Your task to perform on an android device: Search for sushi restaurants on Maps Image 0: 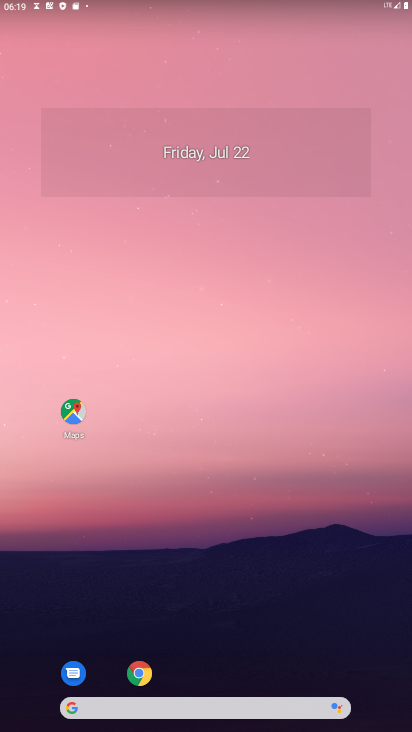
Step 0: press home button
Your task to perform on an android device: Search for sushi restaurants on Maps Image 1: 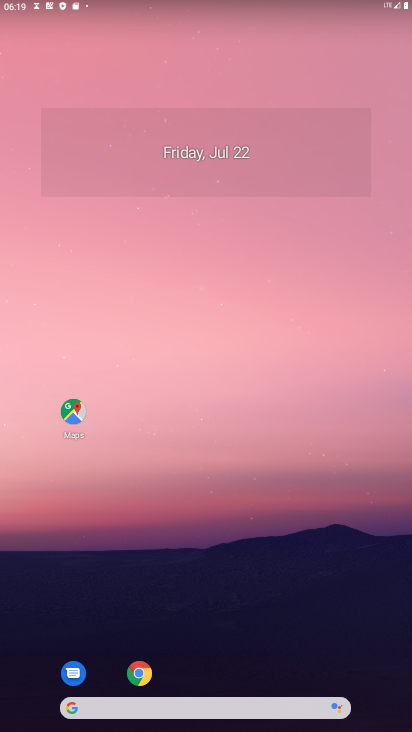
Step 1: drag from (268, 660) to (303, 121)
Your task to perform on an android device: Search for sushi restaurants on Maps Image 2: 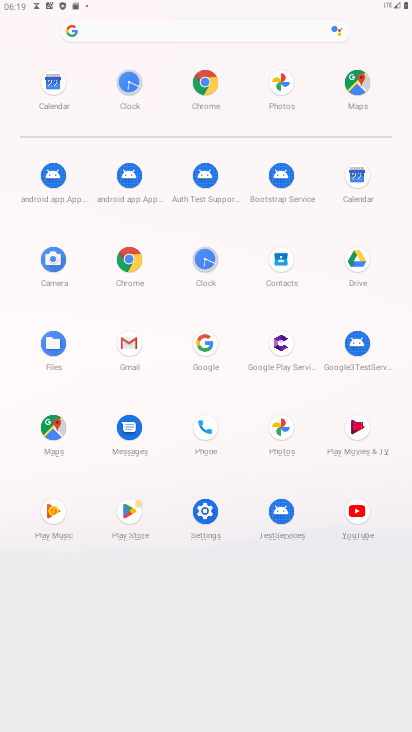
Step 2: click (365, 82)
Your task to perform on an android device: Search for sushi restaurants on Maps Image 3: 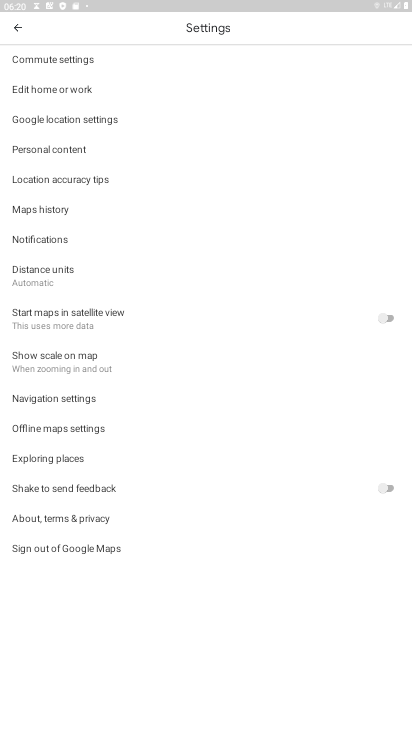
Step 3: click (14, 31)
Your task to perform on an android device: Search for sushi restaurants on Maps Image 4: 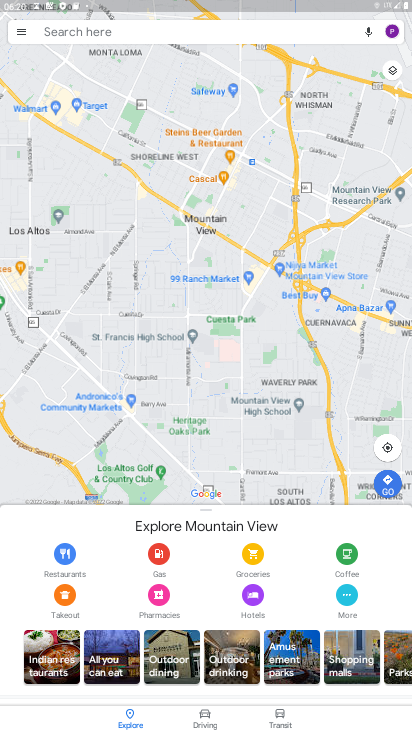
Step 4: click (104, 23)
Your task to perform on an android device: Search for sushi restaurants on Maps Image 5: 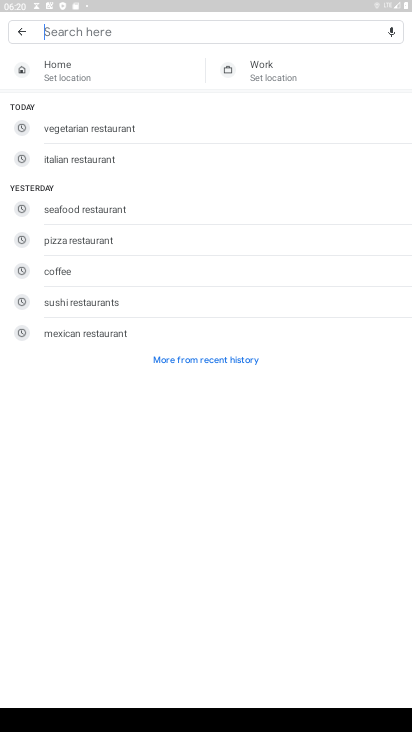
Step 5: click (79, 301)
Your task to perform on an android device: Search for sushi restaurants on Maps Image 6: 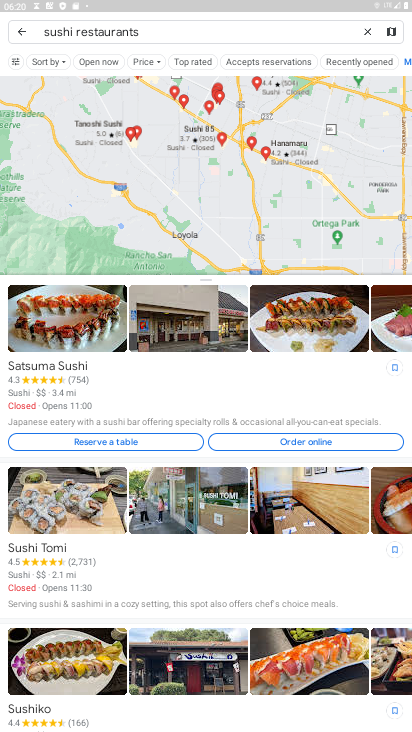
Step 6: task complete